Your task to perform on an android device: Open maps Image 0: 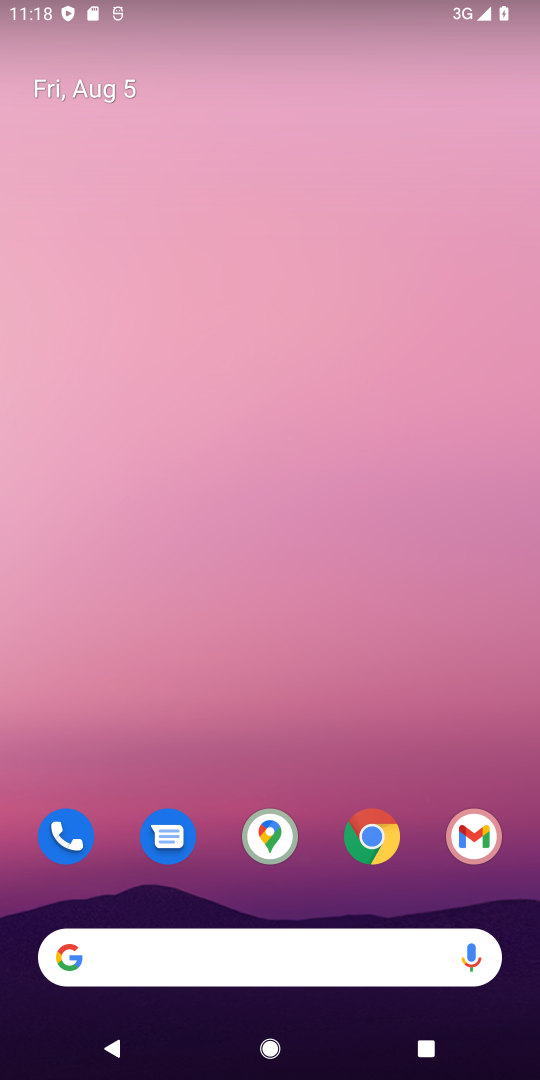
Step 0: drag from (318, 854) to (414, 36)
Your task to perform on an android device: Open maps Image 1: 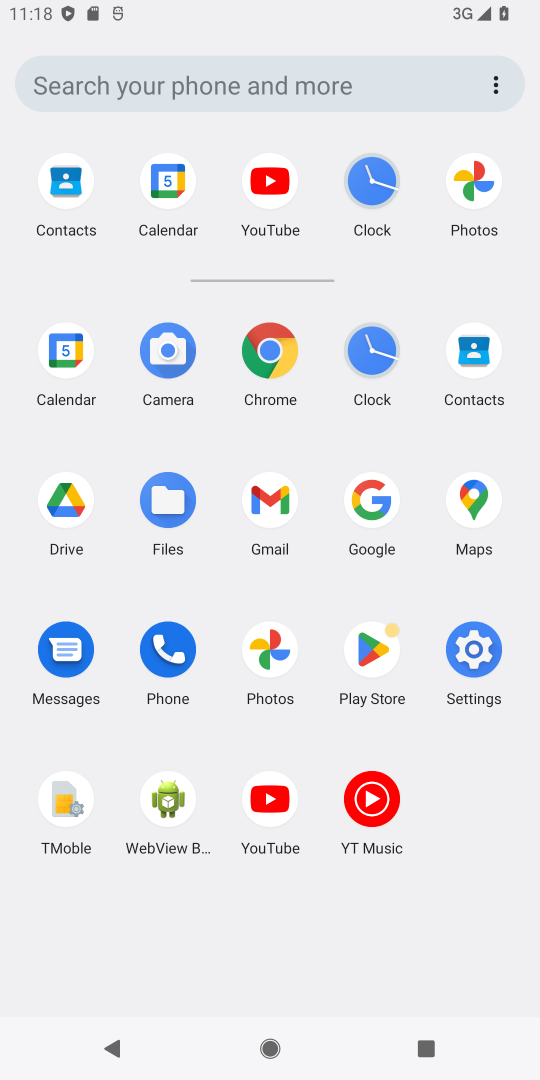
Step 1: click (472, 497)
Your task to perform on an android device: Open maps Image 2: 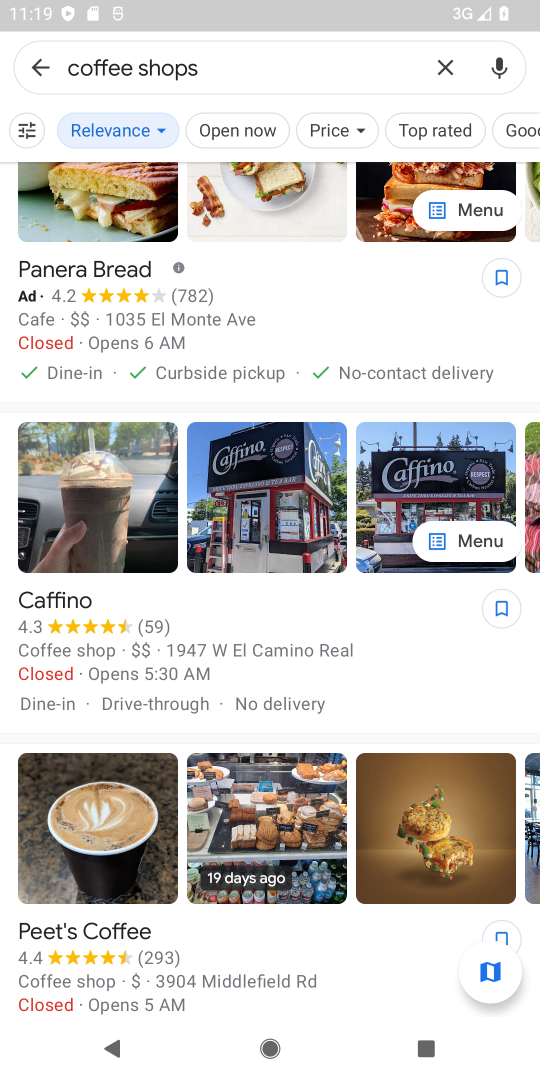
Step 2: task complete